Your task to perform on an android device: install app "WhatsApp Messenger" Image 0: 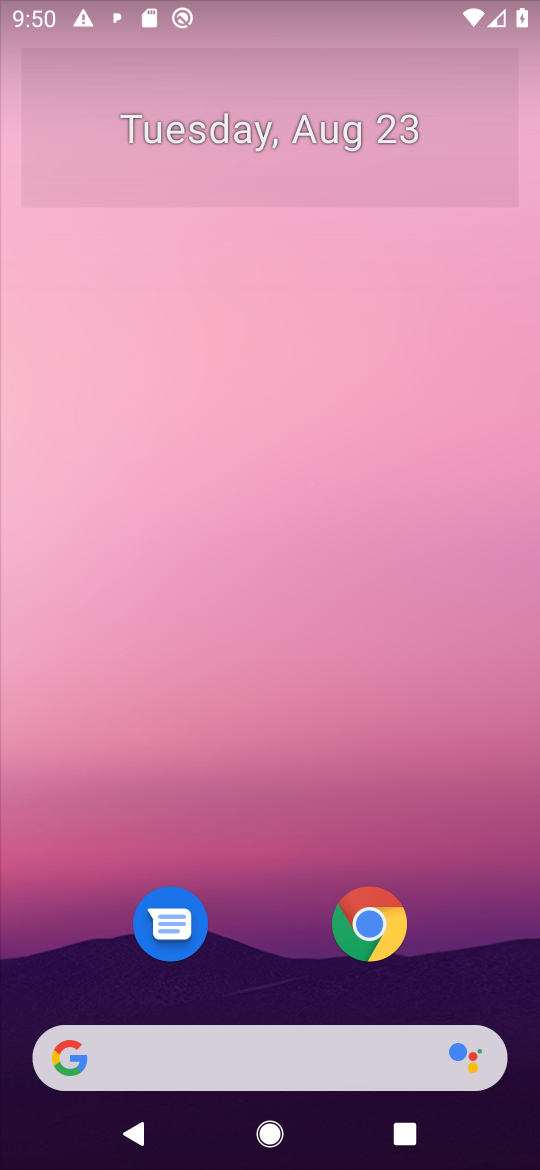
Step 0: drag from (457, 855) to (443, 61)
Your task to perform on an android device: install app "WhatsApp Messenger" Image 1: 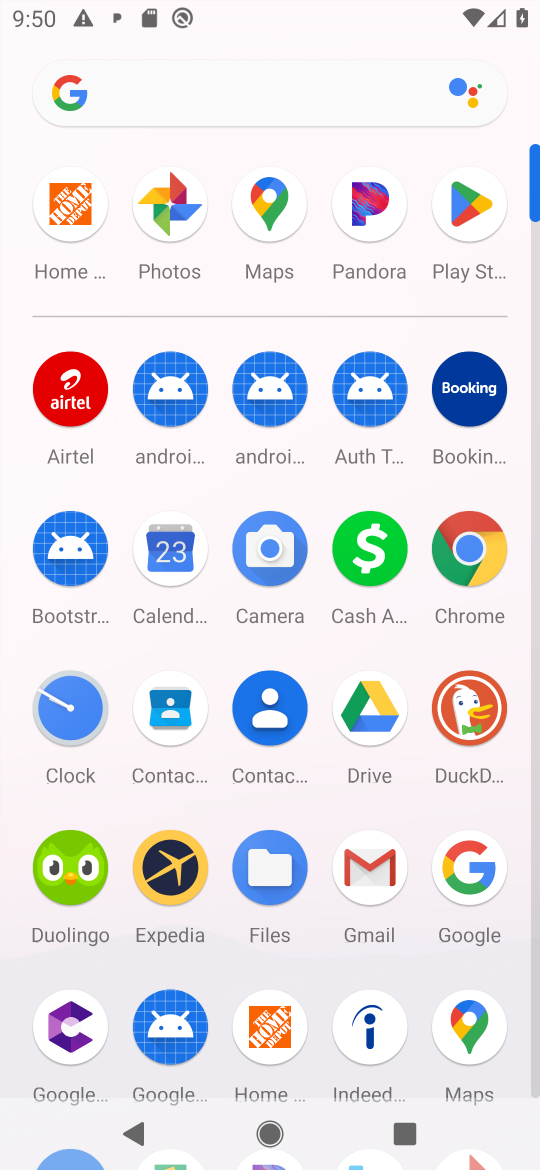
Step 1: click (469, 206)
Your task to perform on an android device: install app "WhatsApp Messenger" Image 2: 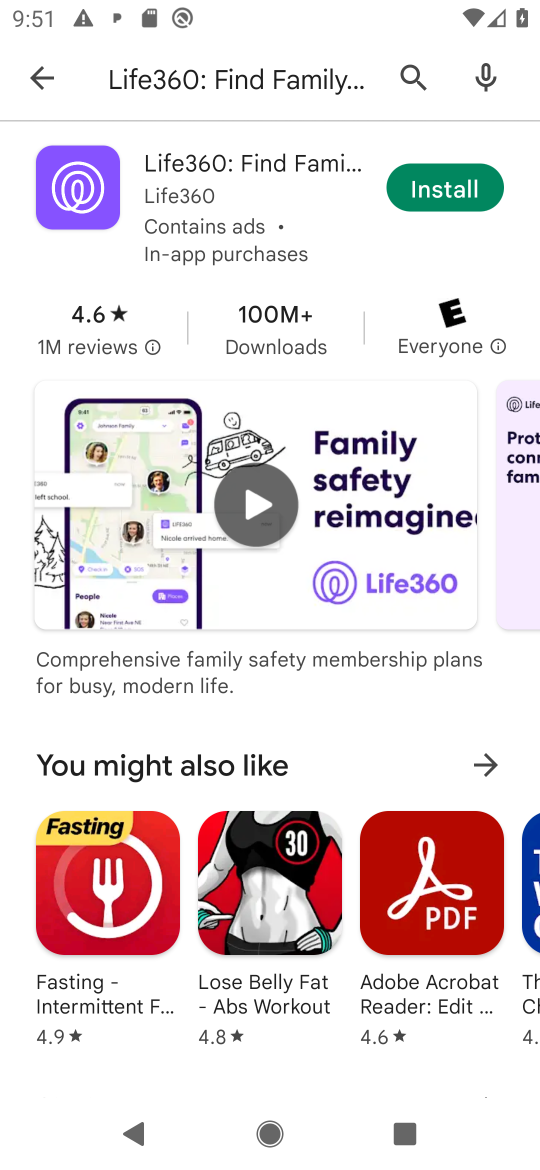
Step 2: press back button
Your task to perform on an android device: install app "WhatsApp Messenger" Image 3: 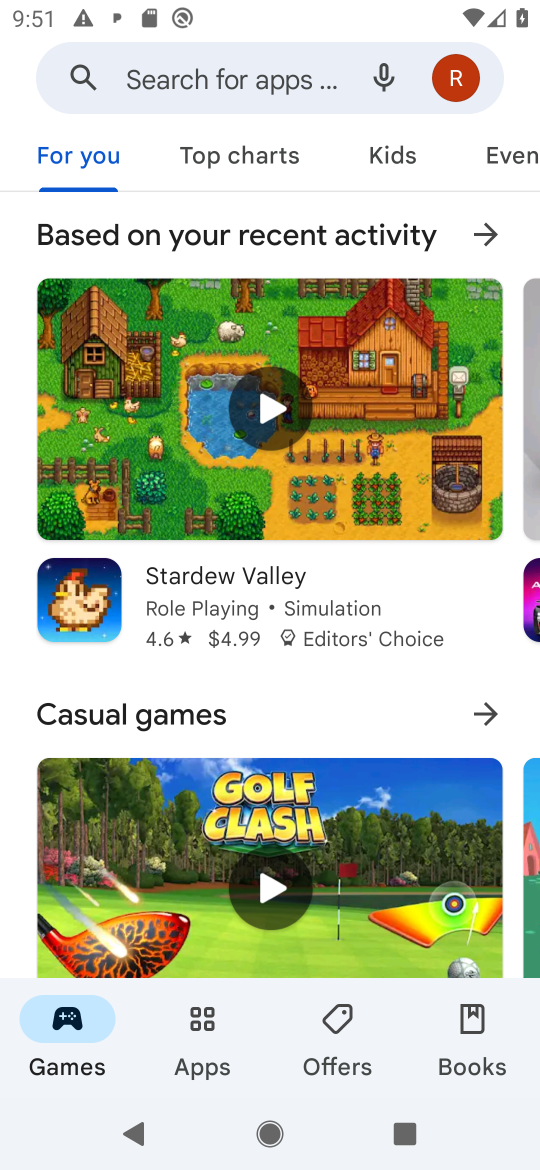
Step 3: click (283, 78)
Your task to perform on an android device: install app "WhatsApp Messenger" Image 4: 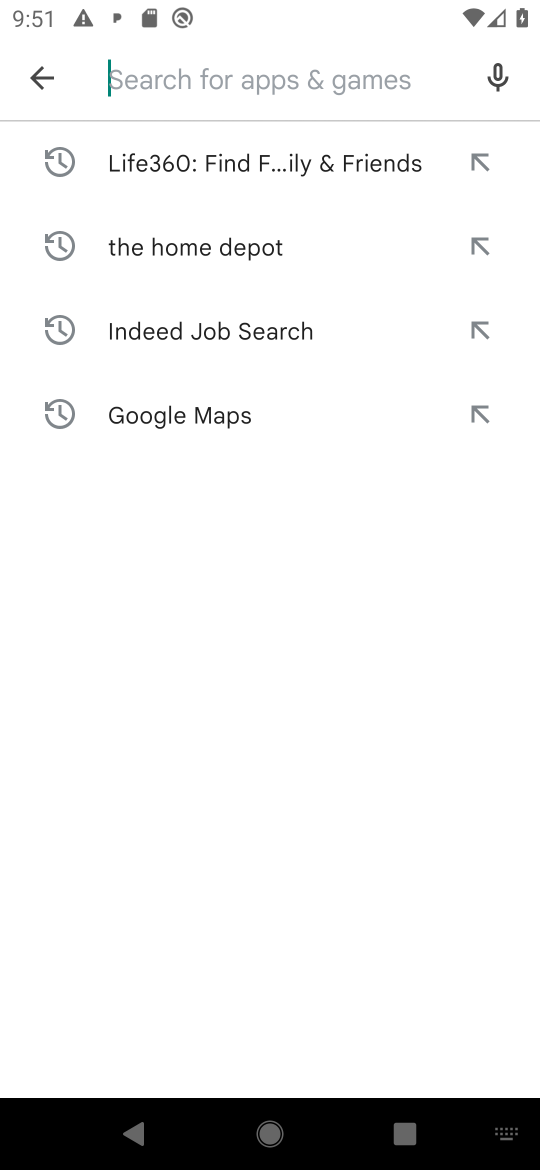
Step 4: type "WhatsApp Messenger"
Your task to perform on an android device: install app "WhatsApp Messenger" Image 5: 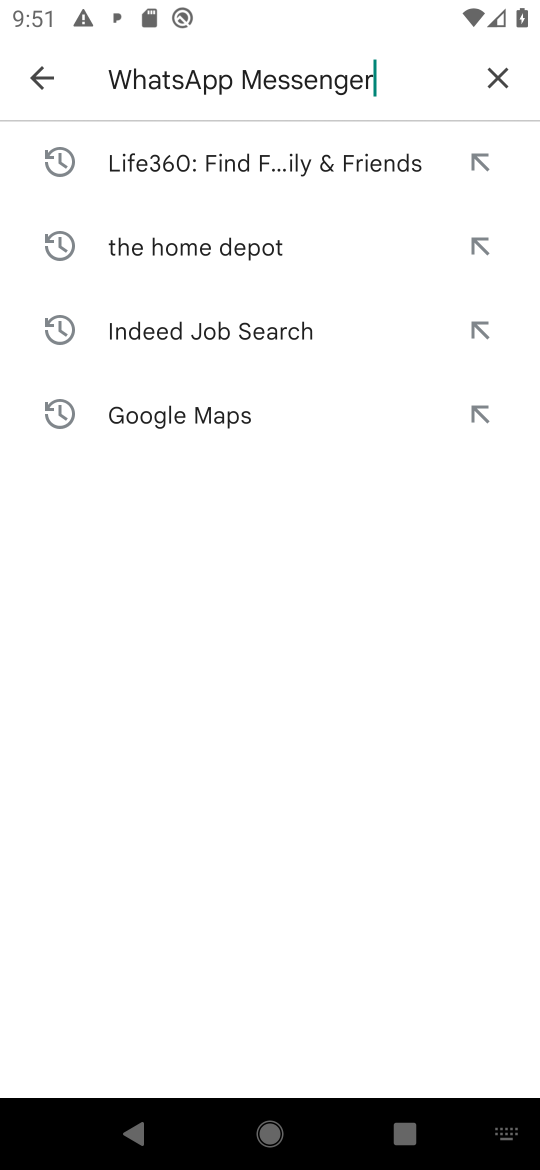
Step 5: press enter
Your task to perform on an android device: install app "WhatsApp Messenger" Image 6: 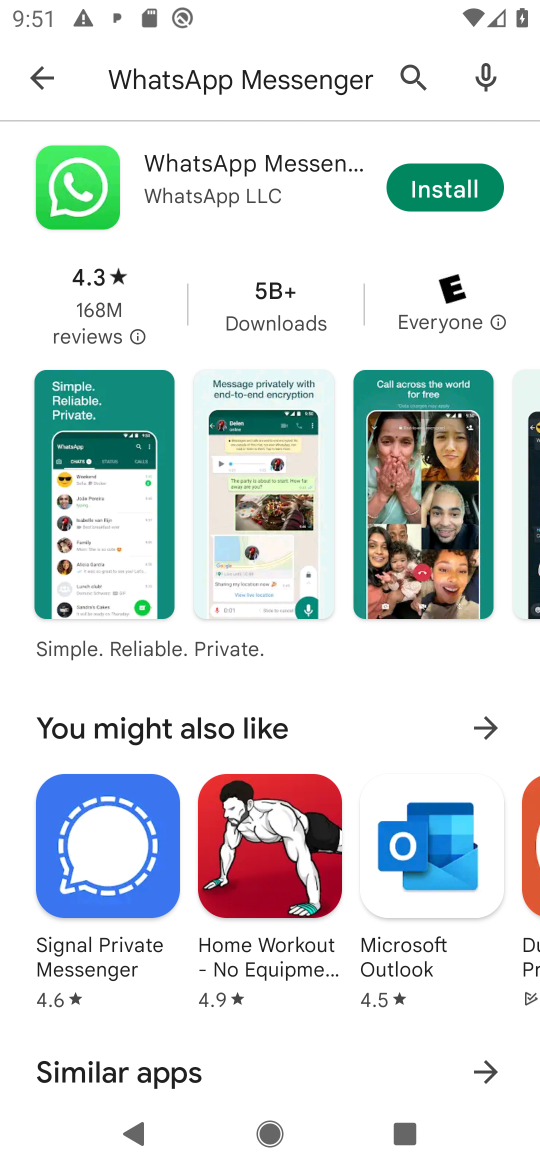
Step 6: press back button
Your task to perform on an android device: install app "WhatsApp Messenger" Image 7: 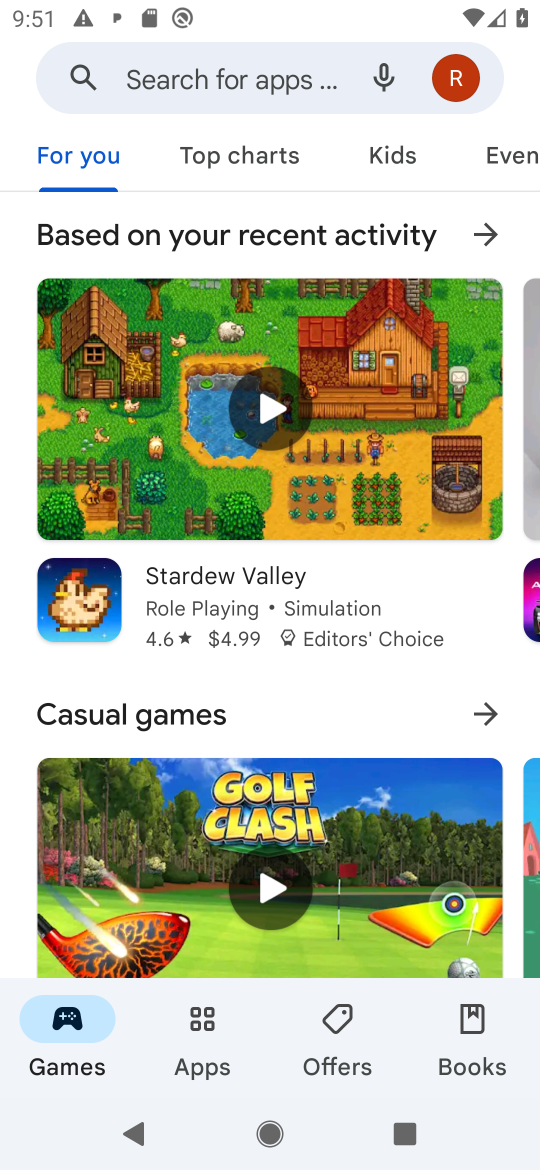
Step 7: click (261, 78)
Your task to perform on an android device: install app "WhatsApp Messenger" Image 8: 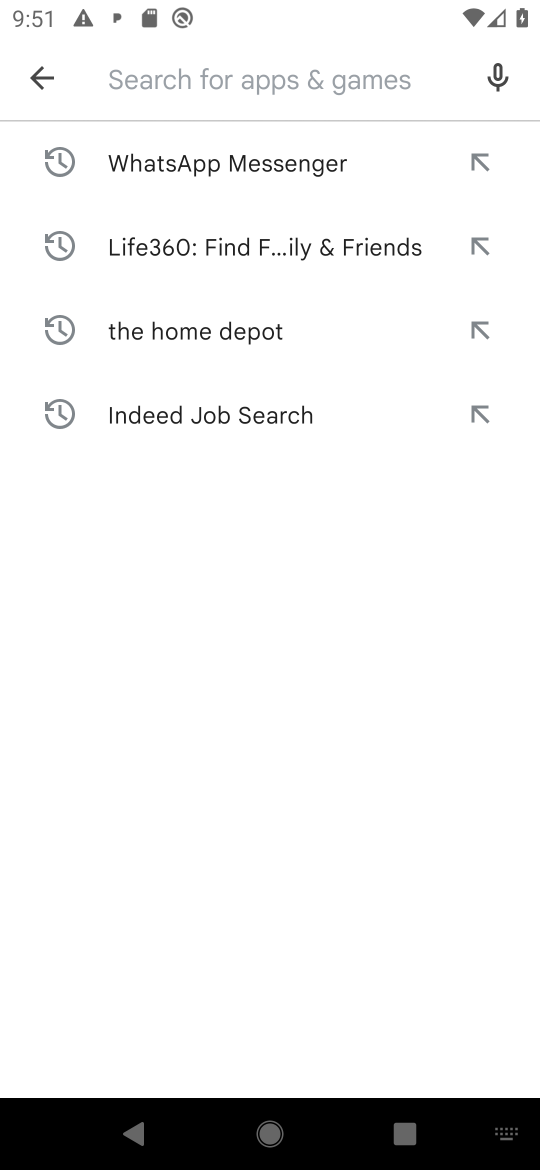
Step 8: click (241, 159)
Your task to perform on an android device: install app "WhatsApp Messenger" Image 9: 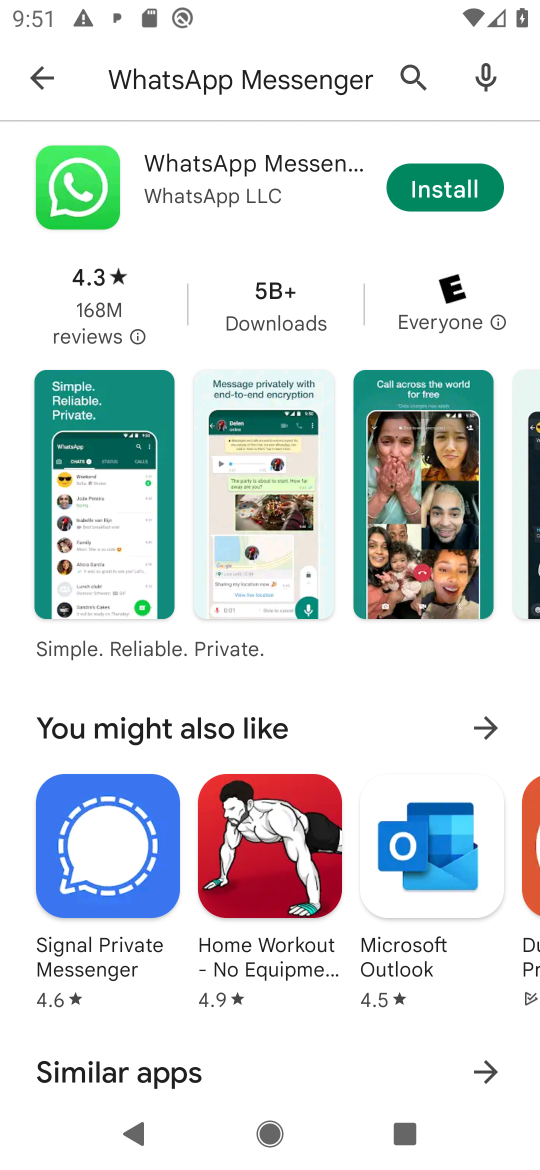
Step 9: click (452, 189)
Your task to perform on an android device: install app "WhatsApp Messenger" Image 10: 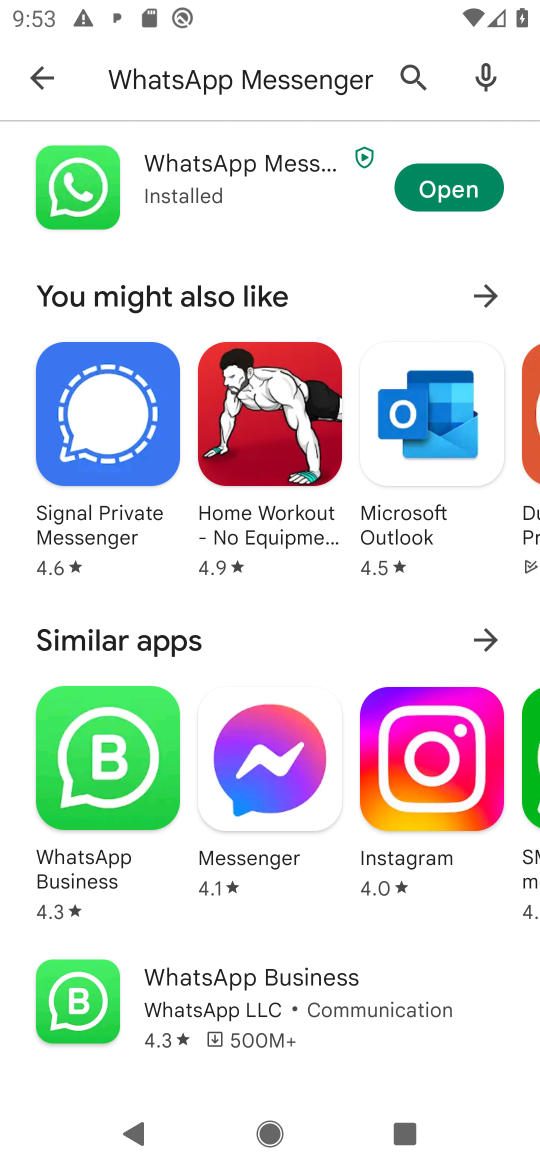
Step 10: task complete